Your task to perform on an android device: add a contact in the contacts app Image 0: 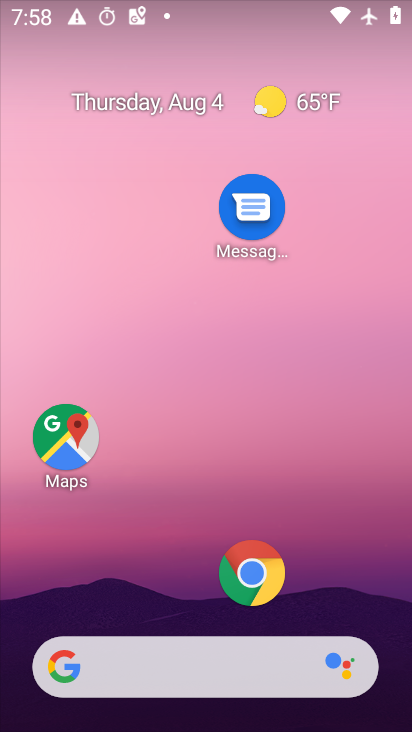
Step 0: press home button
Your task to perform on an android device: add a contact in the contacts app Image 1: 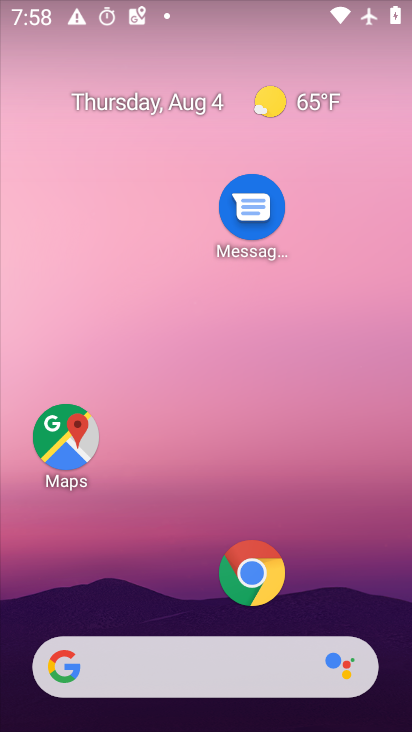
Step 1: drag from (174, 621) to (156, 123)
Your task to perform on an android device: add a contact in the contacts app Image 2: 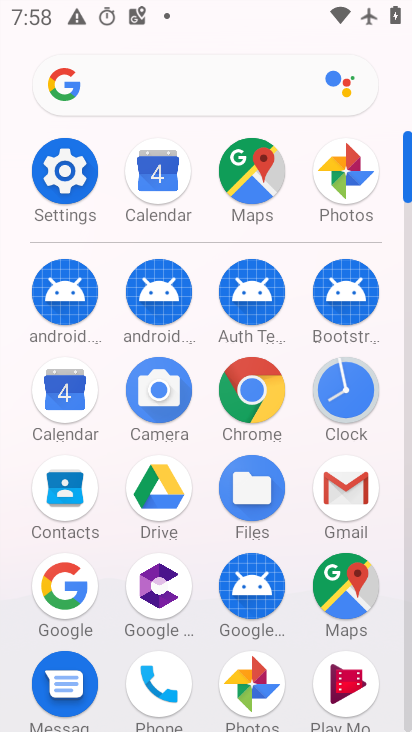
Step 2: click (68, 498)
Your task to perform on an android device: add a contact in the contacts app Image 3: 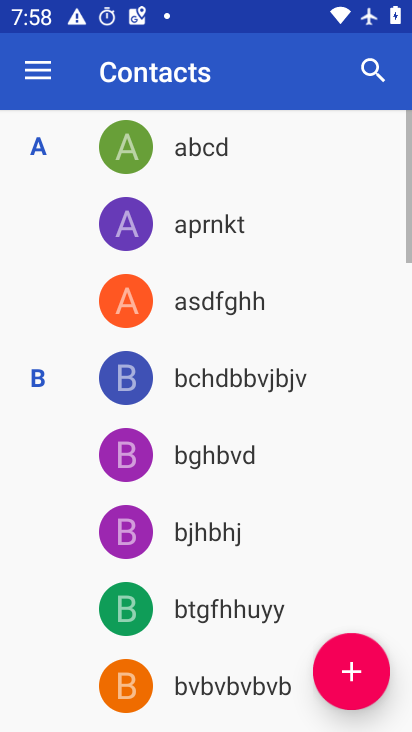
Step 3: click (356, 676)
Your task to perform on an android device: add a contact in the contacts app Image 4: 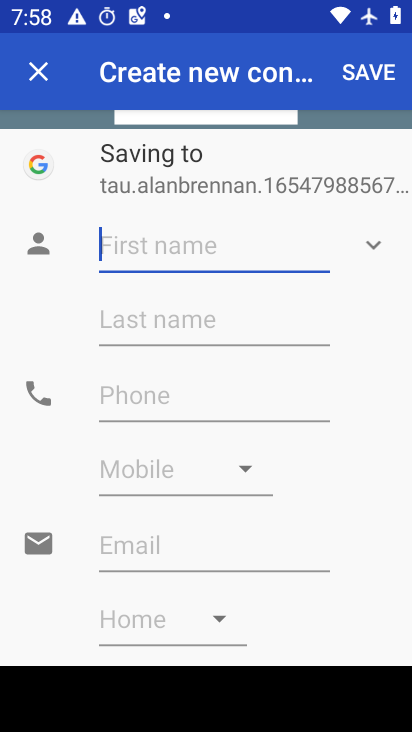
Step 4: type "vbvbgvg"
Your task to perform on an android device: add a contact in the contacts app Image 5: 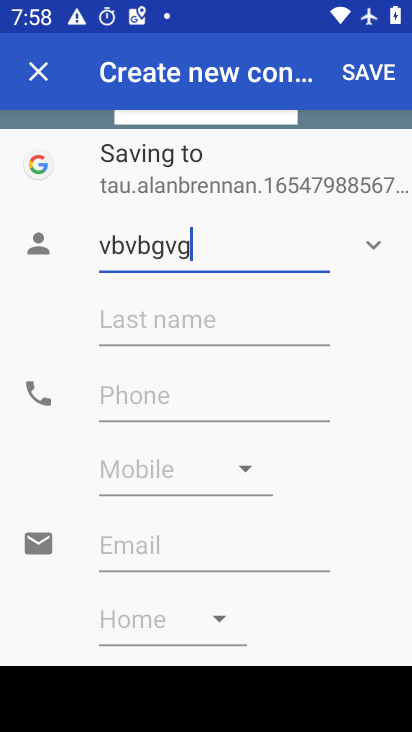
Step 5: click (235, 411)
Your task to perform on an android device: add a contact in the contacts app Image 6: 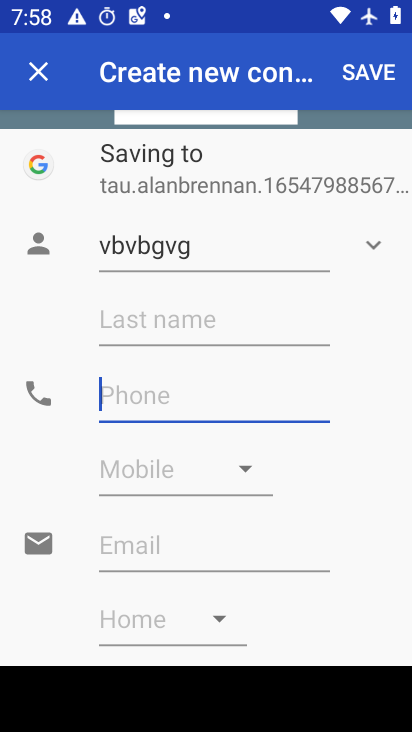
Step 6: type "565656"
Your task to perform on an android device: add a contact in the contacts app Image 7: 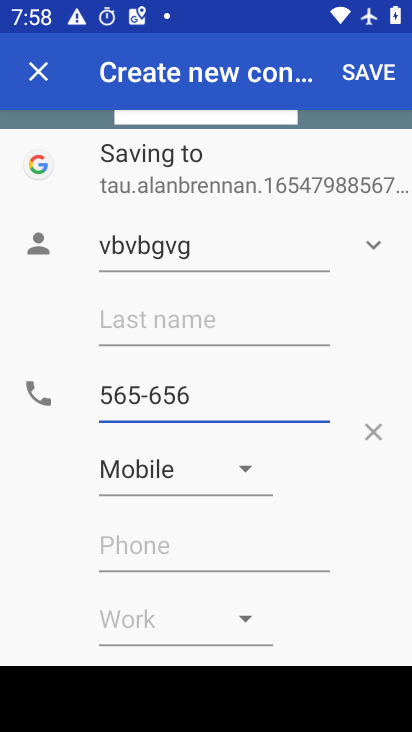
Step 7: click (366, 66)
Your task to perform on an android device: add a contact in the contacts app Image 8: 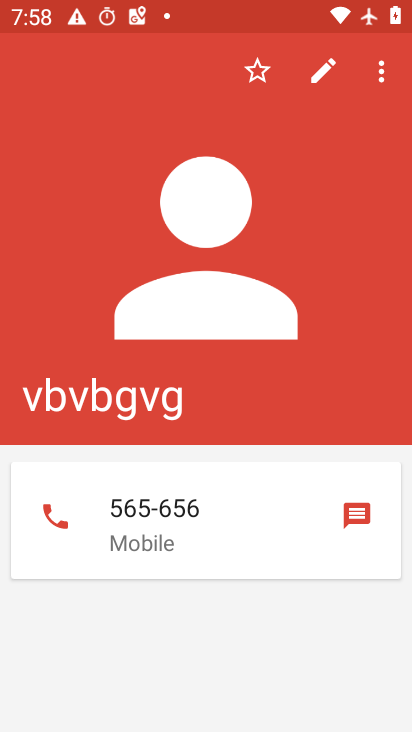
Step 8: task complete